Your task to perform on an android device: Turn on the flashlight Image 0: 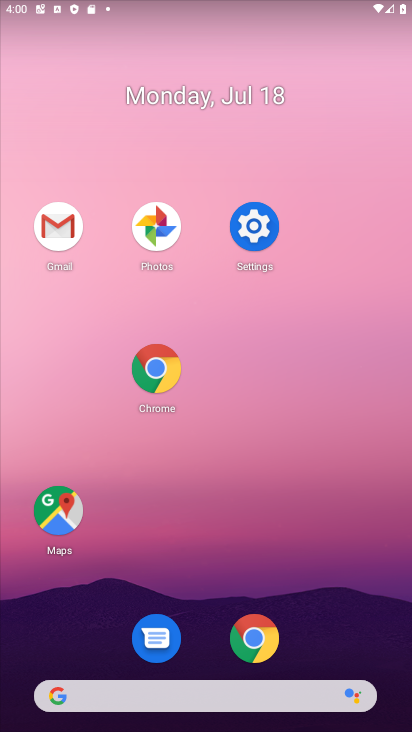
Step 0: drag from (281, 4) to (362, 671)
Your task to perform on an android device: Turn on the flashlight Image 1: 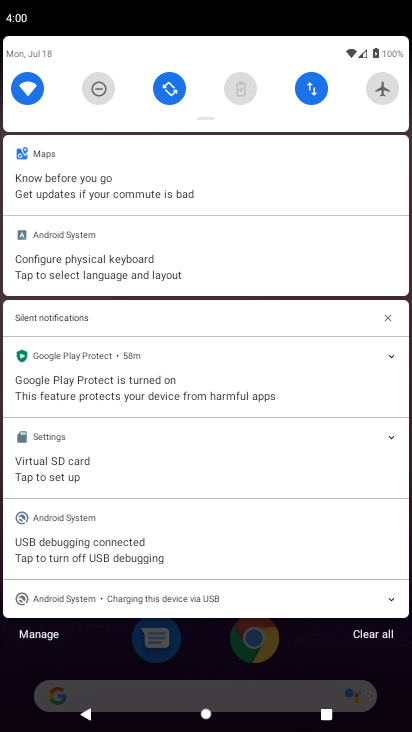
Step 1: task complete